Your task to perform on an android device: Search for "razer blade" on walmart.com, select the first entry, add it to the cart, then select checkout. Image 0: 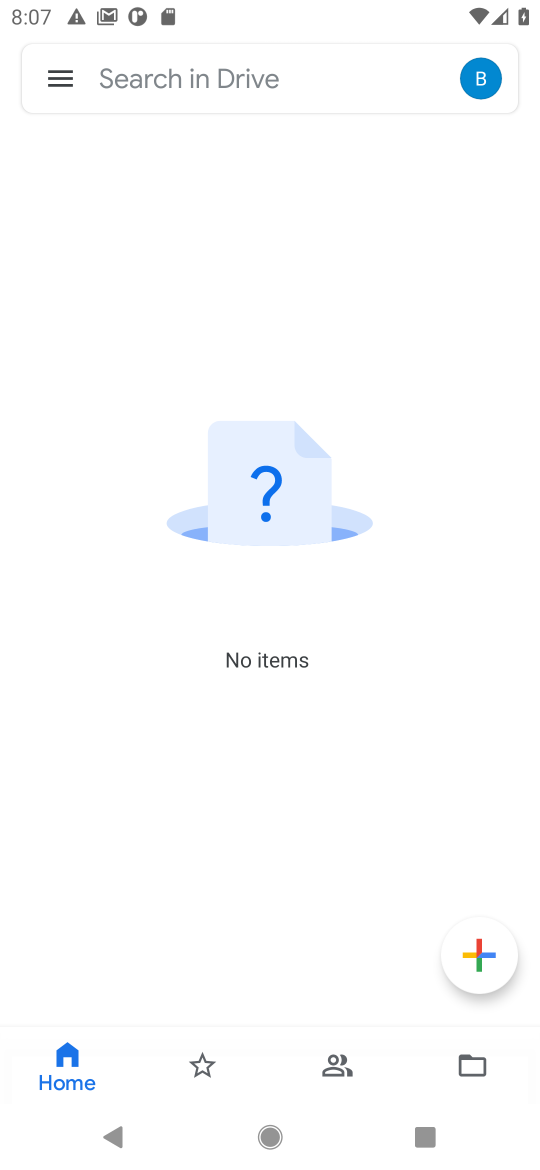
Step 0: press home button
Your task to perform on an android device: Search for "razer blade" on walmart.com, select the first entry, add it to the cart, then select checkout. Image 1: 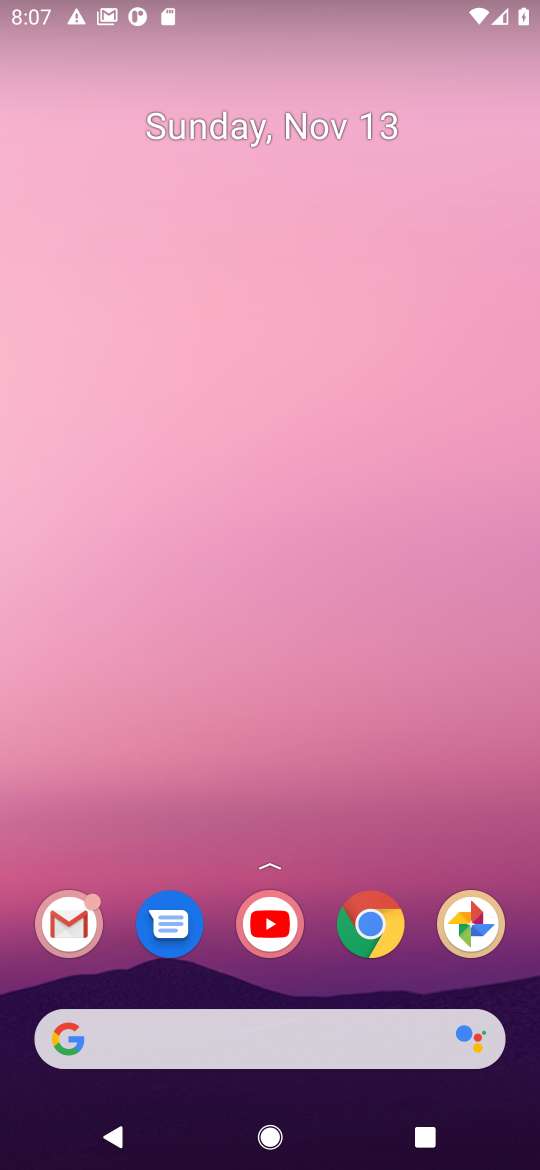
Step 1: click (373, 927)
Your task to perform on an android device: Search for "razer blade" on walmart.com, select the first entry, add it to the cart, then select checkout. Image 2: 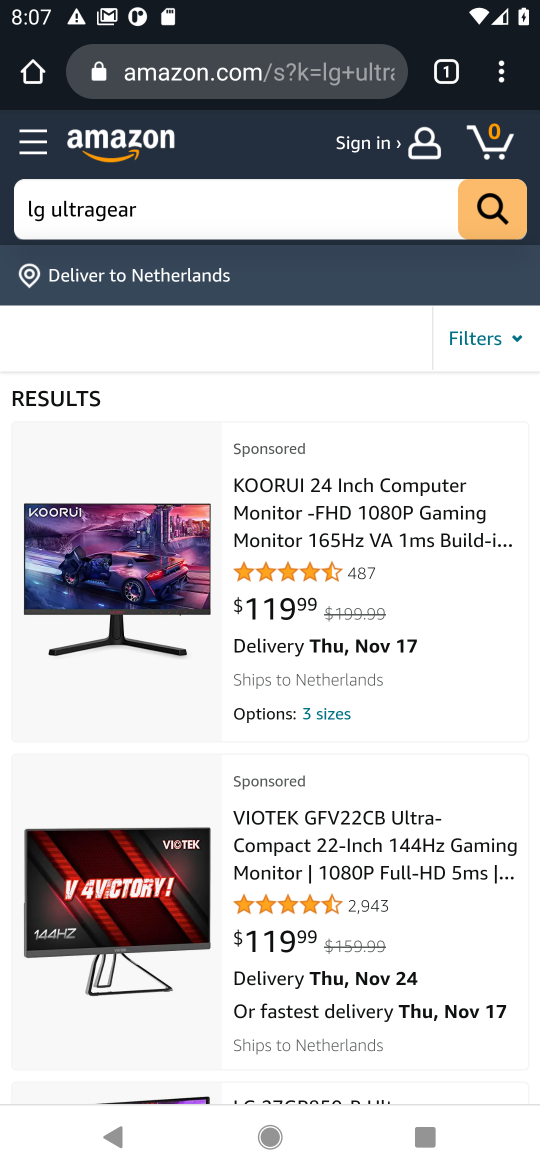
Step 2: click (206, 84)
Your task to perform on an android device: Search for "razer blade" on walmart.com, select the first entry, add it to the cart, then select checkout. Image 3: 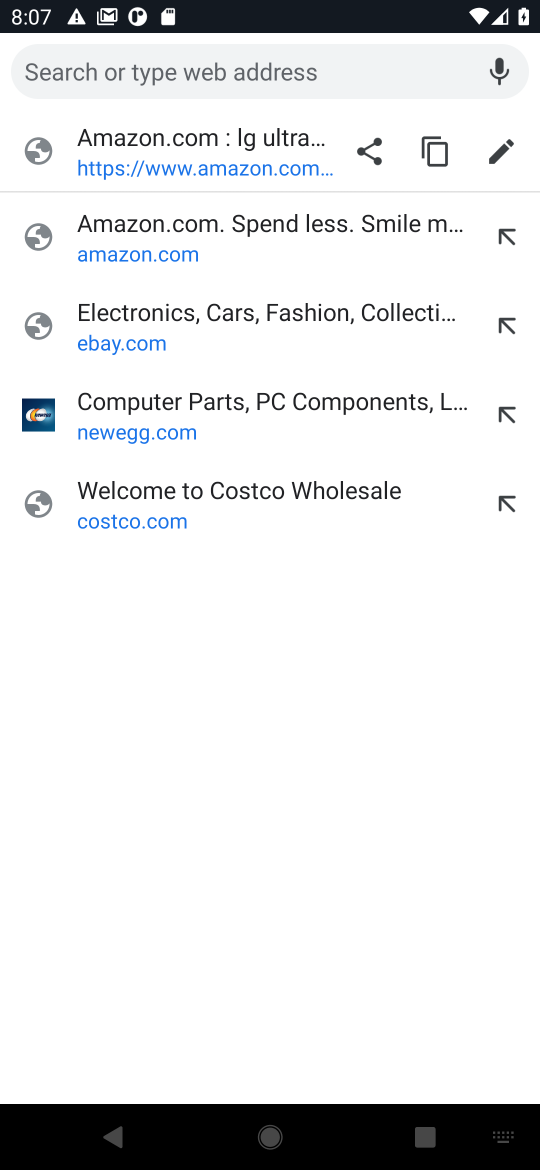
Step 3: type "walmart.com"
Your task to perform on an android device: Search for "razer blade" on walmart.com, select the first entry, add it to the cart, then select checkout. Image 4: 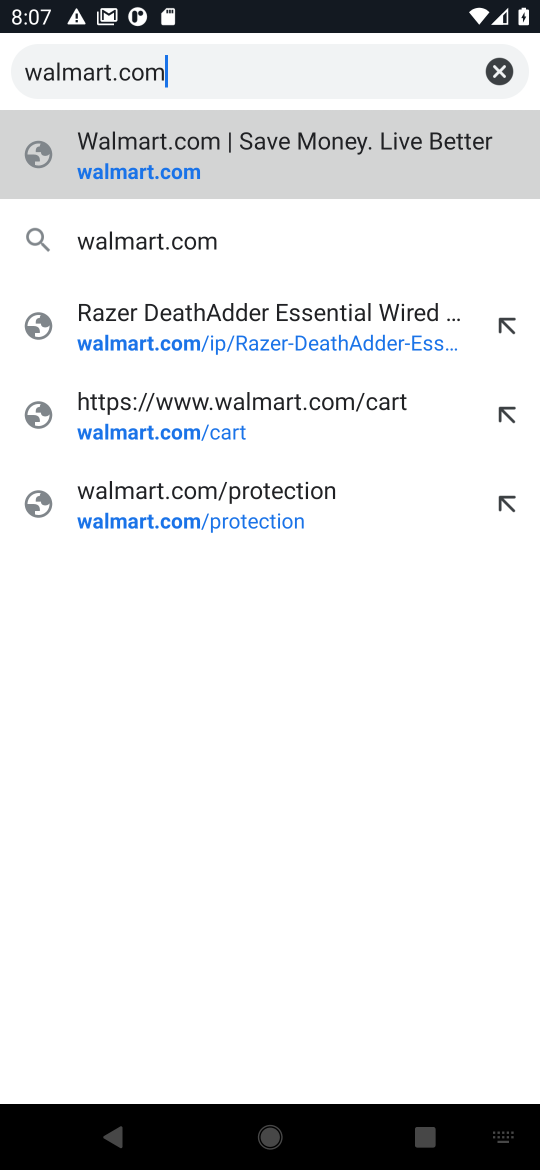
Step 4: click (129, 161)
Your task to perform on an android device: Search for "razer blade" on walmart.com, select the first entry, add it to the cart, then select checkout. Image 5: 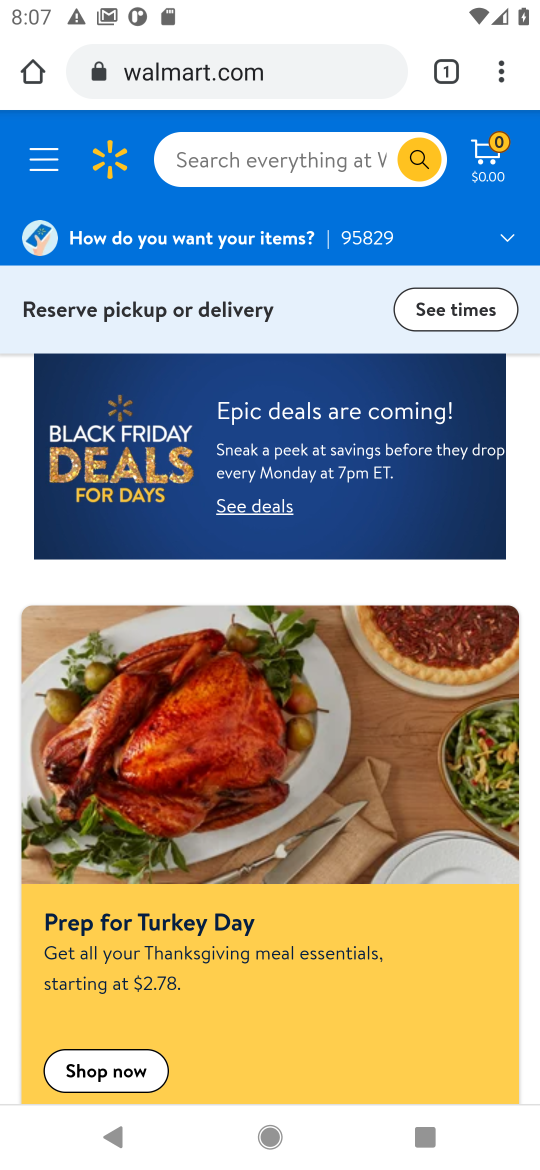
Step 5: click (228, 162)
Your task to perform on an android device: Search for "razer blade" on walmart.com, select the first entry, add it to the cart, then select checkout. Image 6: 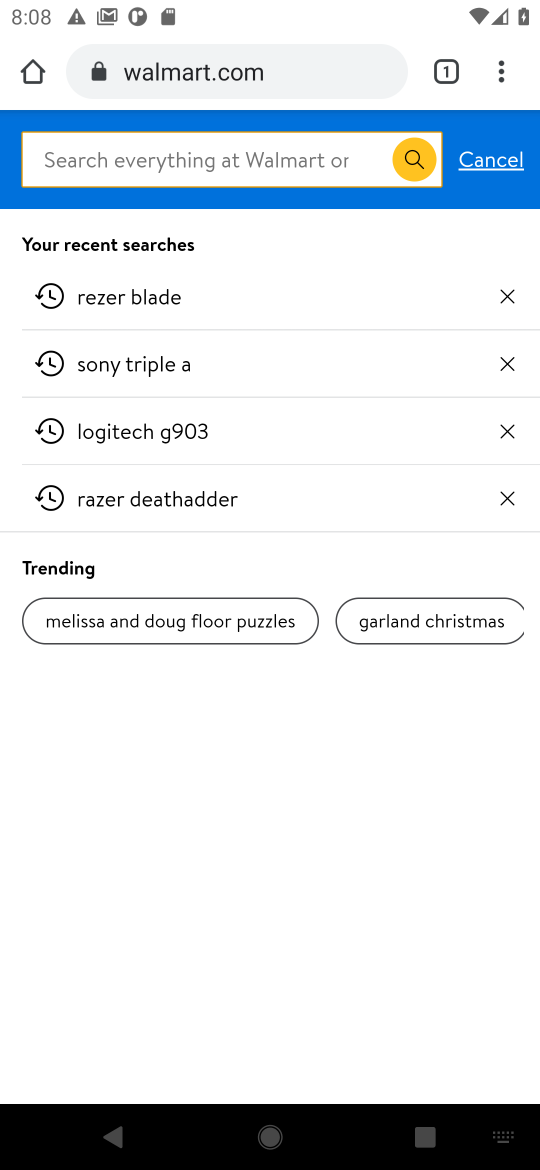
Step 6: type "razer blade"
Your task to perform on an android device: Search for "razer blade" on walmart.com, select the first entry, add it to the cart, then select checkout. Image 7: 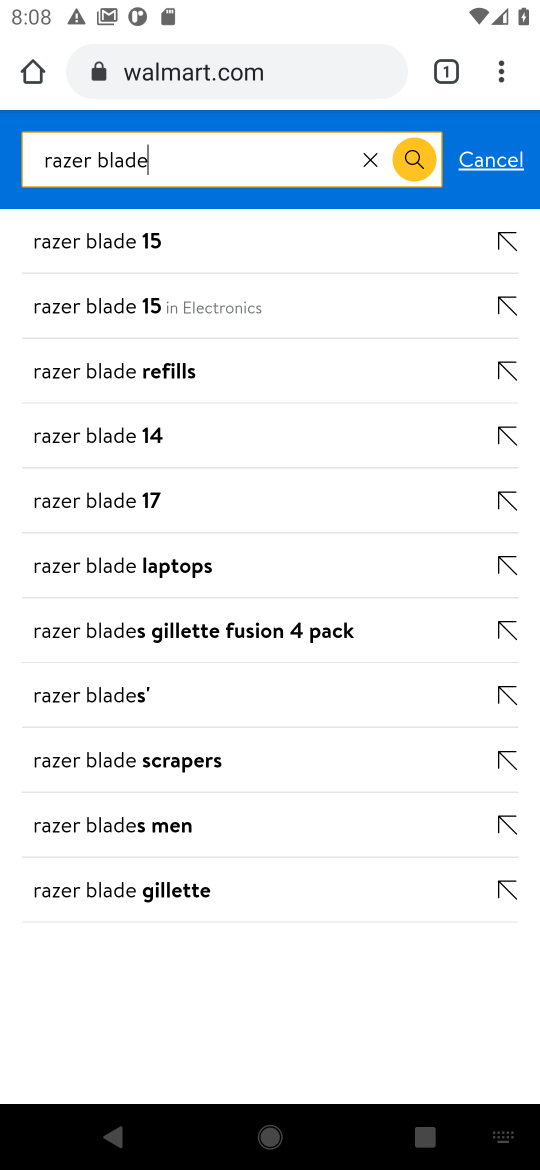
Step 7: click (412, 157)
Your task to perform on an android device: Search for "razer blade" on walmart.com, select the first entry, add it to the cart, then select checkout. Image 8: 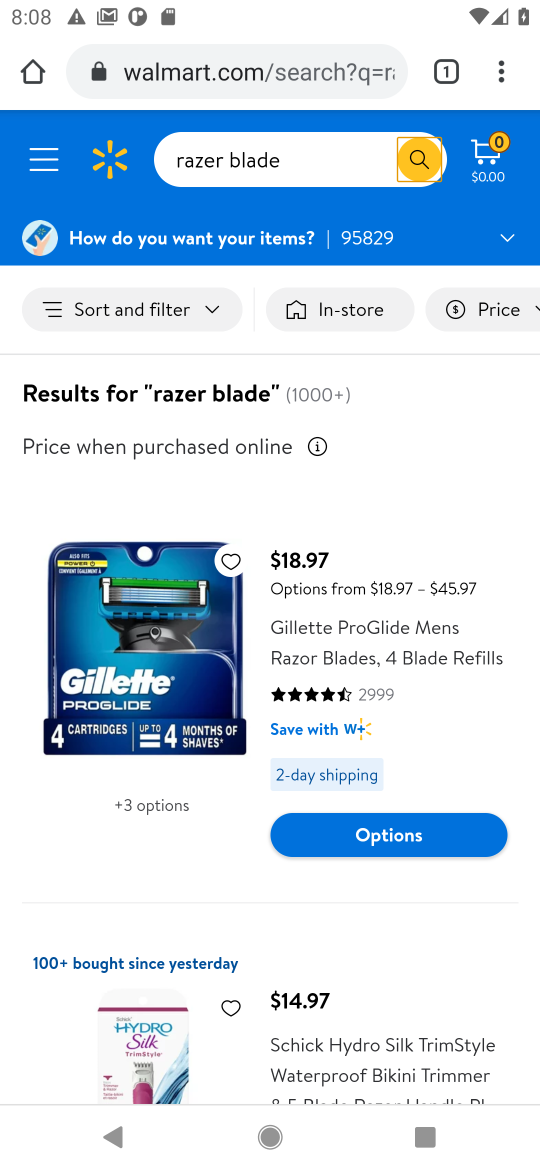
Step 8: task complete